Your task to perform on an android device: Search for custom wallets on etsy. Image 0: 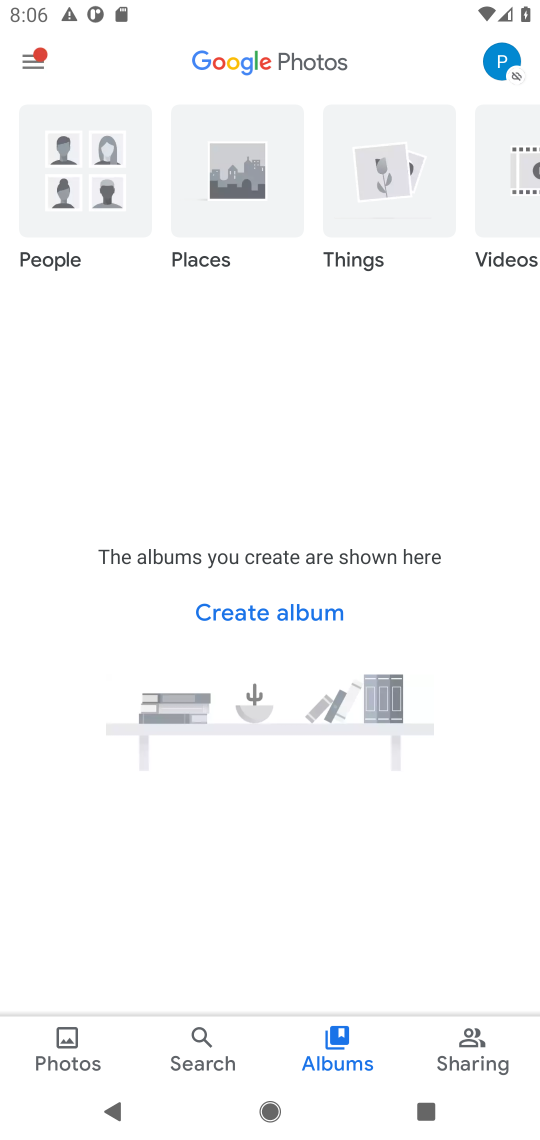
Step 0: task complete